Your task to perform on an android device: Show me the best rated coffee table on Ikea Image 0: 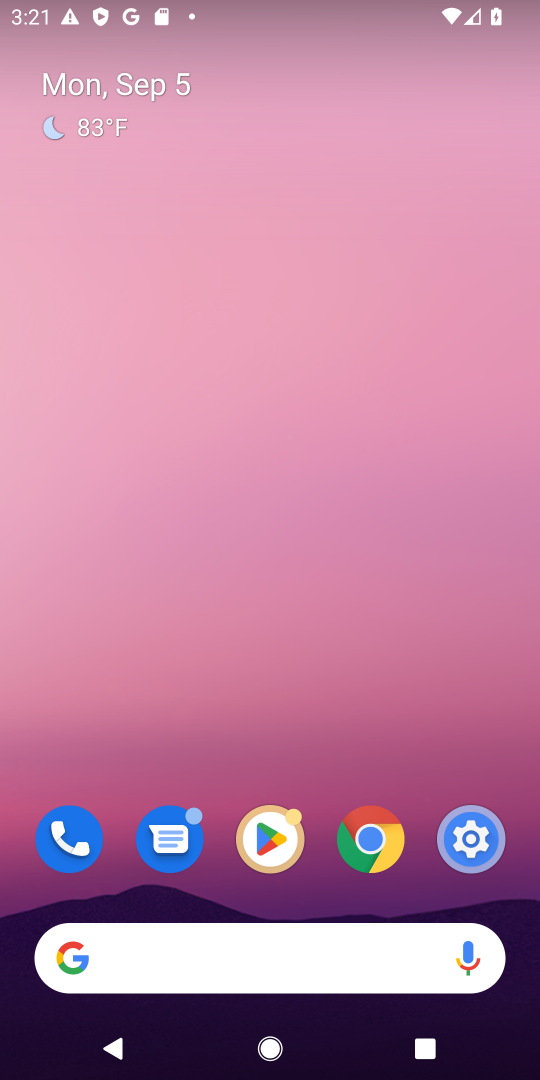
Step 0: type "ikea"
Your task to perform on an android device: Show me the best rated coffee table on Ikea Image 1: 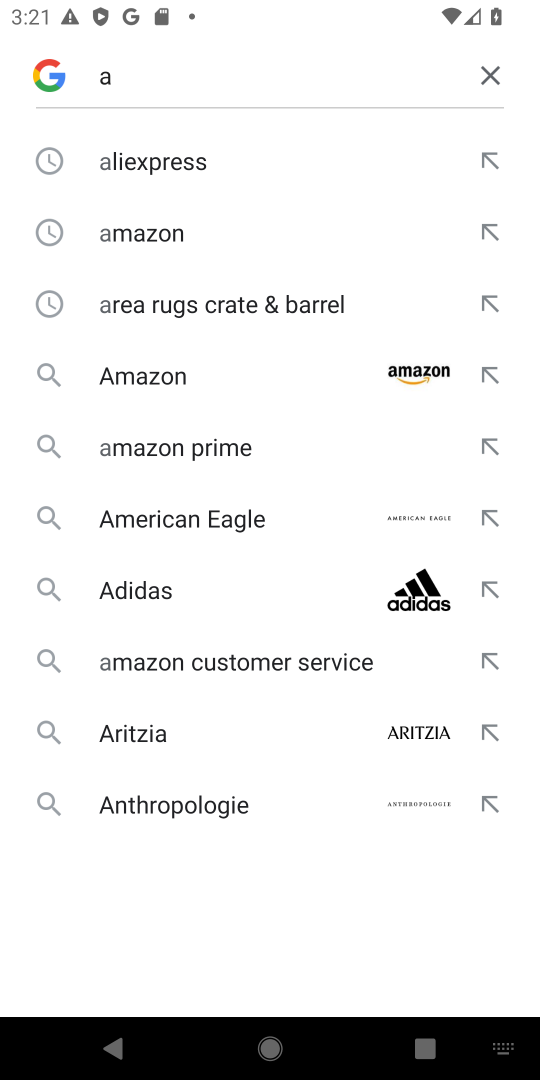
Step 1: click (488, 77)
Your task to perform on an android device: Show me the best rated coffee table on Ikea Image 2: 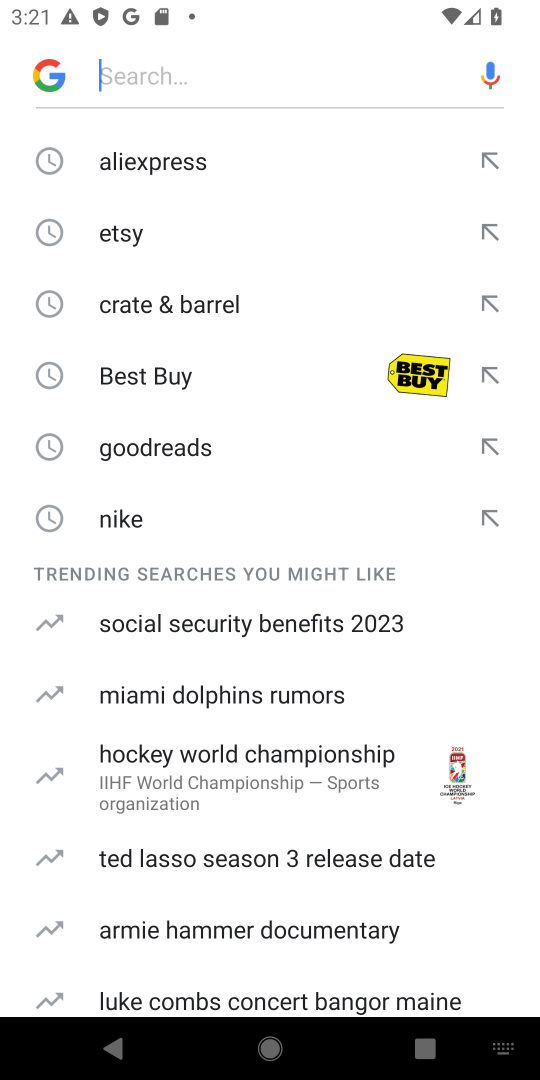
Step 2: type "ikea"
Your task to perform on an android device: Show me the best rated coffee table on Ikea Image 3: 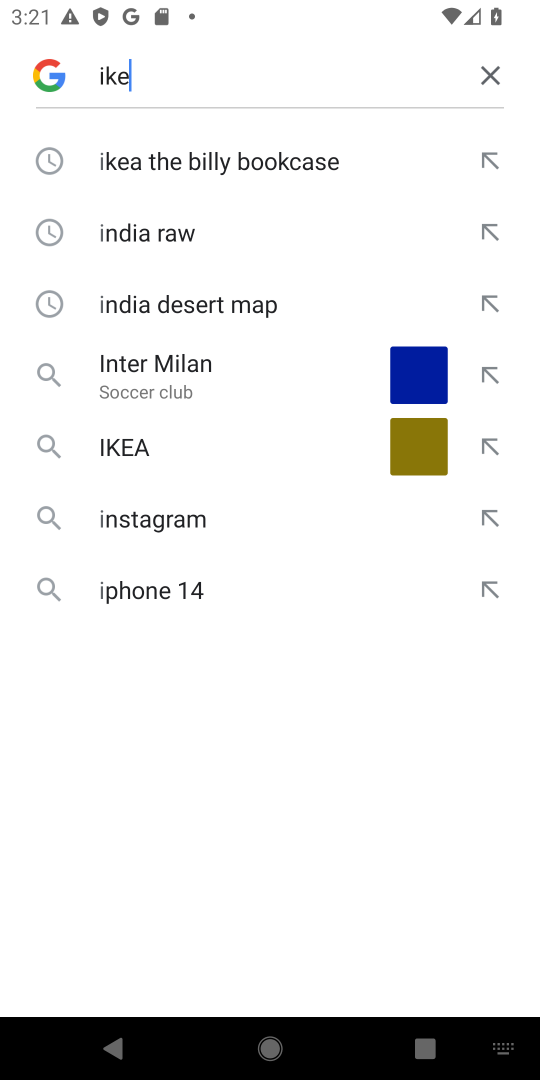
Step 3: type ""
Your task to perform on an android device: Show me the best rated coffee table on Ikea Image 4: 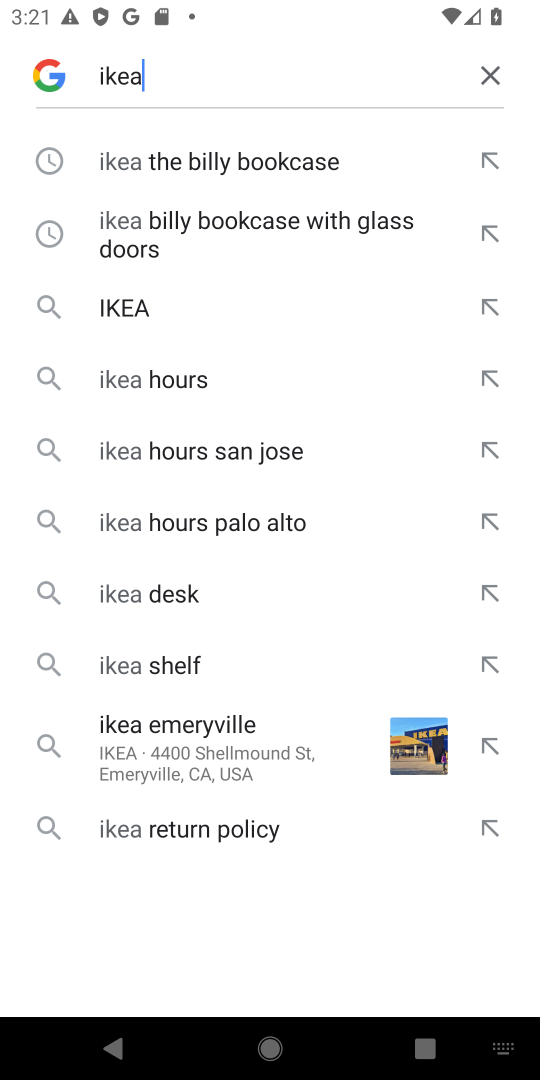
Step 4: press enter
Your task to perform on an android device: Show me the best rated coffee table on Ikea Image 5: 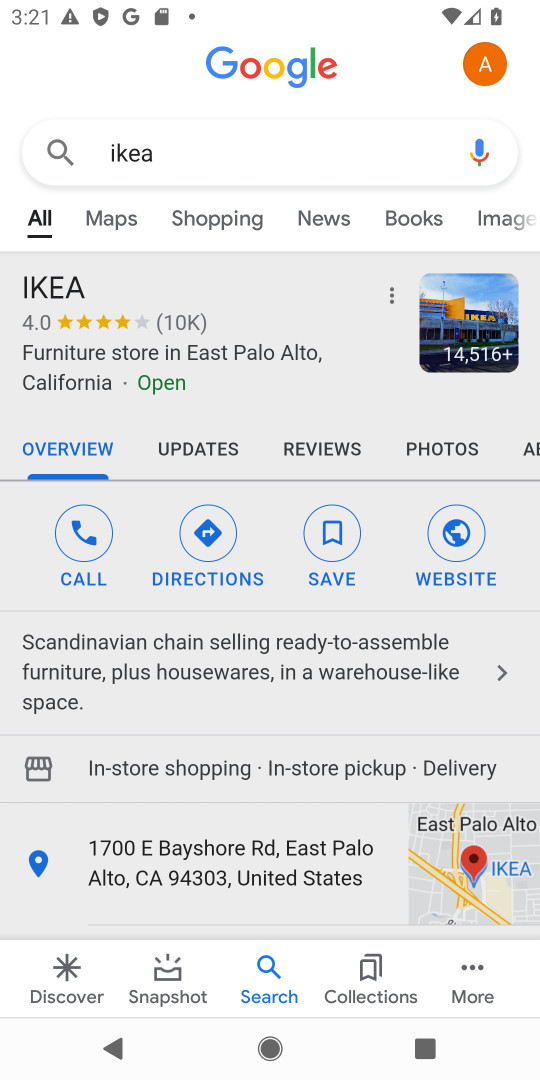
Step 5: drag from (221, 280) to (250, 74)
Your task to perform on an android device: Show me the best rated coffee table on Ikea Image 6: 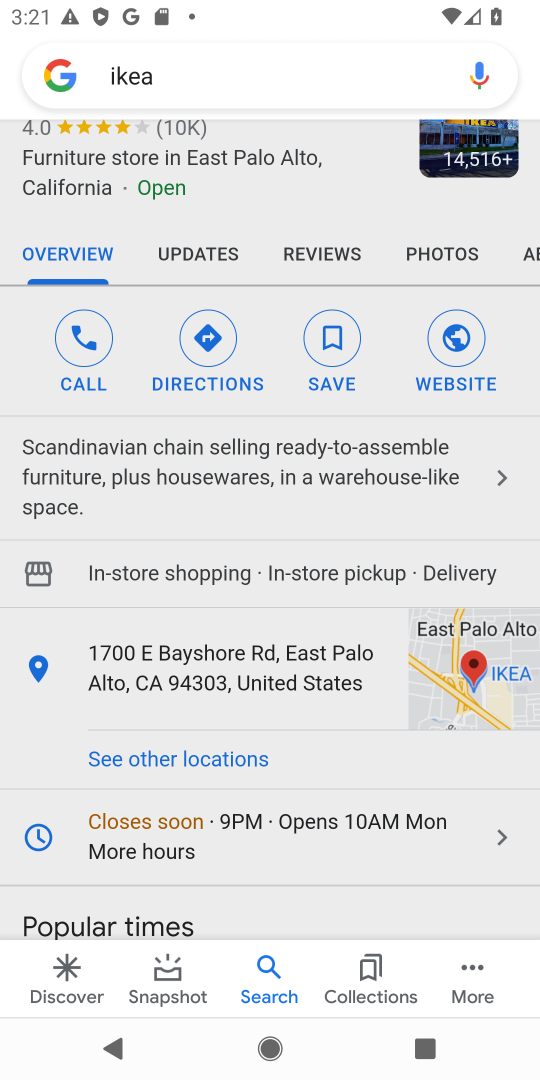
Step 6: drag from (291, 857) to (278, 350)
Your task to perform on an android device: Show me the best rated coffee table on Ikea Image 7: 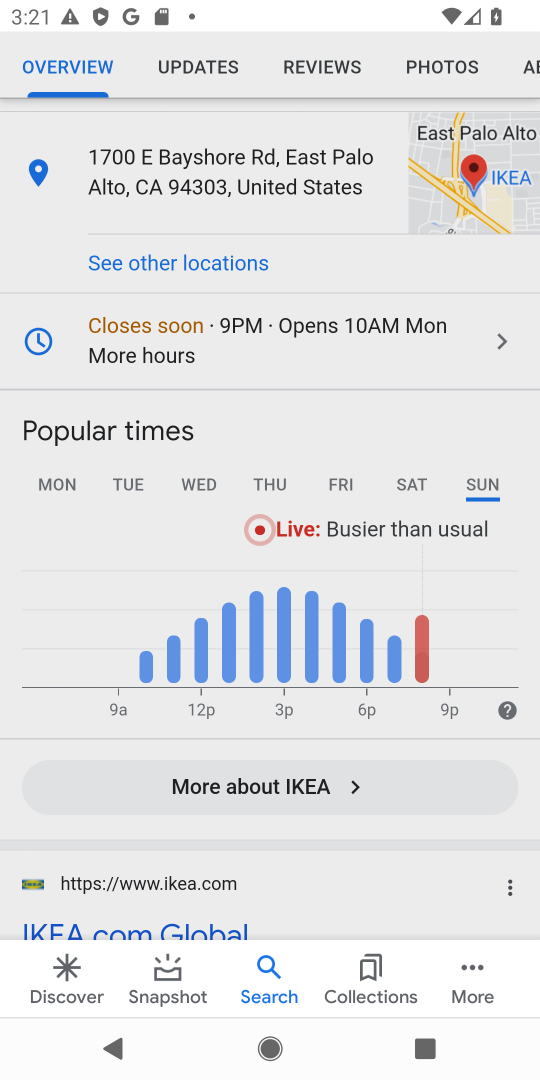
Step 7: drag from (270, 597) to (315, 162)
Your task to perform on an android device: Show me the best rated coffee table on Ikea Image 8: 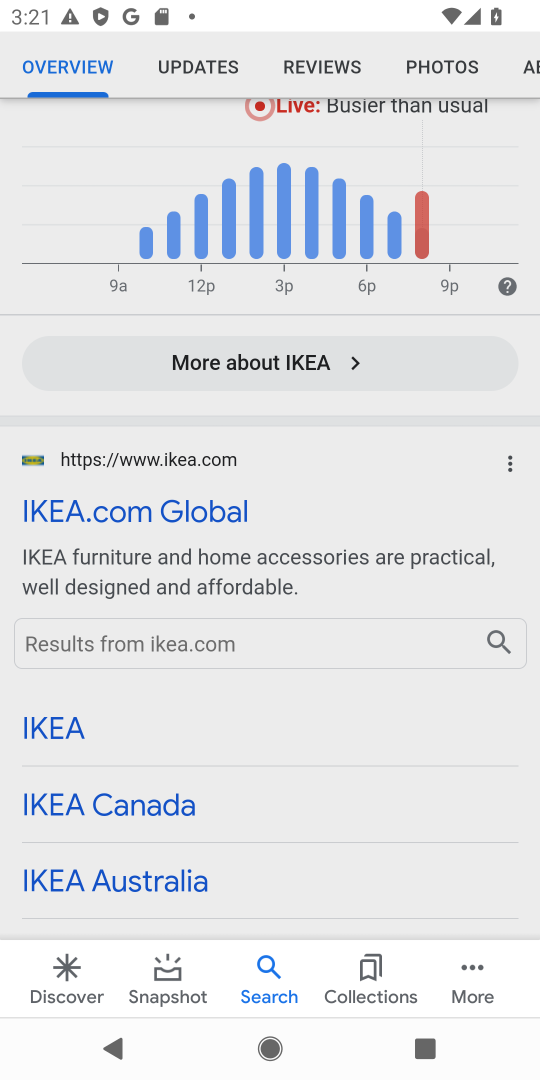
Step 8: click (131, 510)
Your task to perform on an android device: Show me the best rated coffee table on Ikea Image 9: 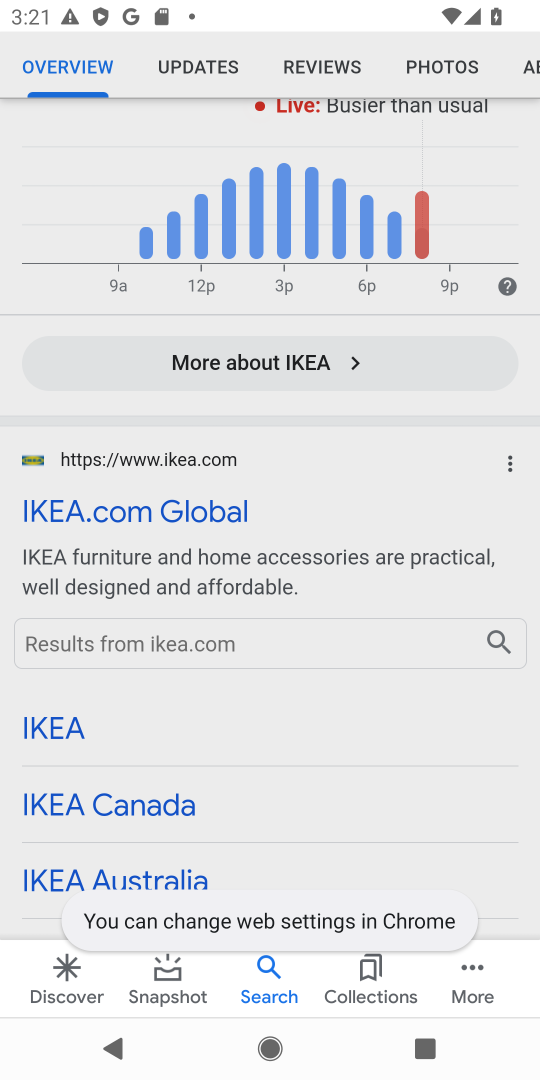
Step 9: click (133, 510)
Your task to perform on an android device: Show me the best rated coffee table on Ikea Image 10: 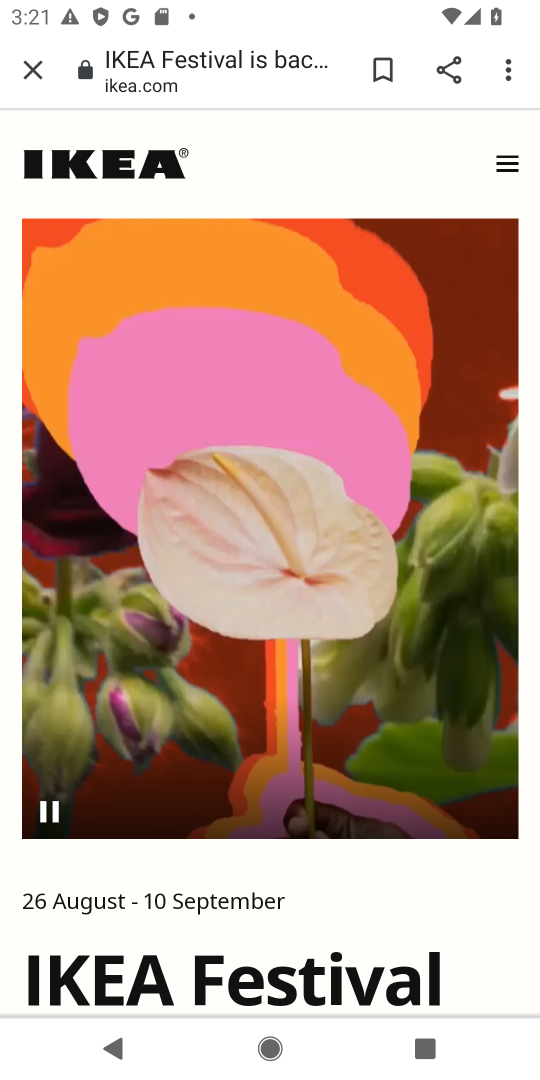
Step 10: drag from (342, 175) to (355, 79)
Your task to perform on an android device: Show me the best rated coffee table on Ikea Image 11: 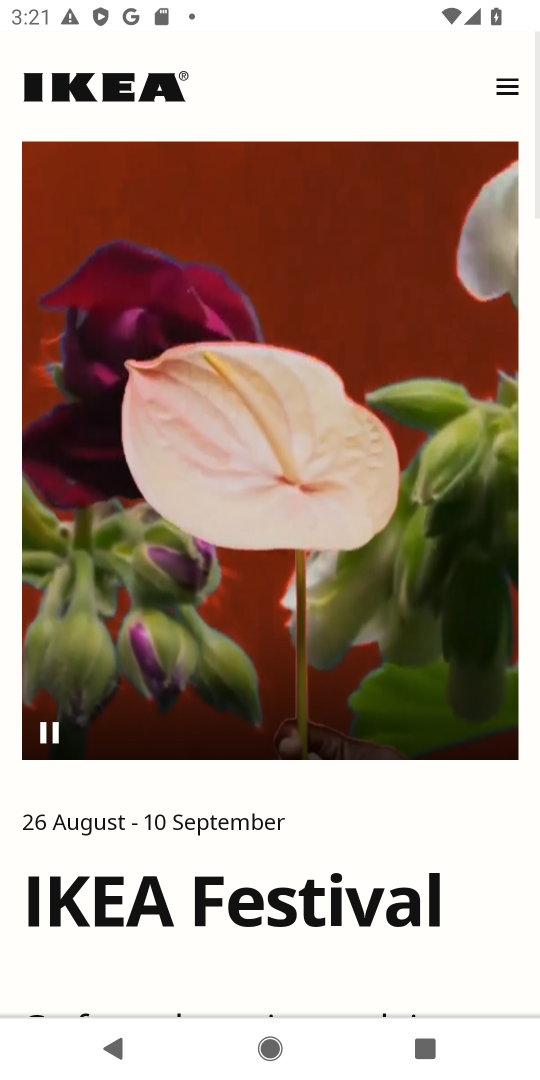
Step 11: drag from (4, 848) to (10, 641)
Your task to perform on an android device: Show me the best rated coffee table on Ikea Image 12: 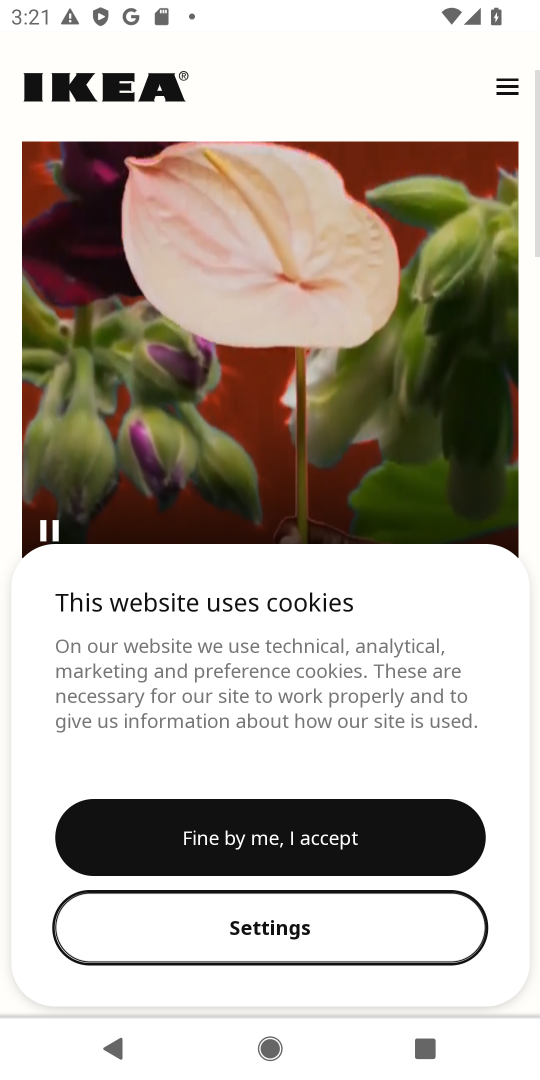
Step 12: click (249, 844)
Your task to perform on an android device: Show me the best rated coffee table on Ikea Image 13: 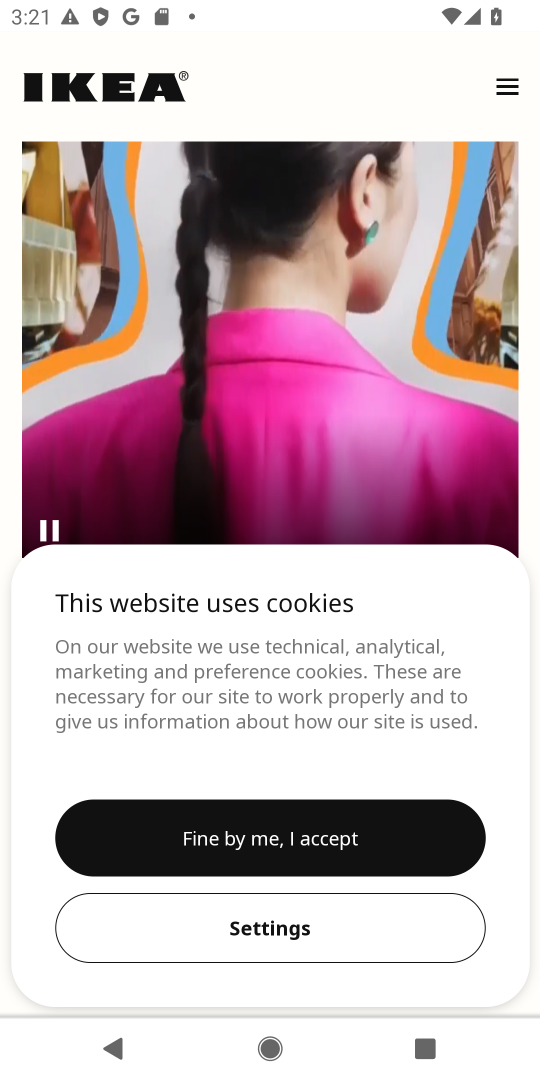
Step 13: click (249, 844)
Your task to perform on an android device: Show me the best rated coffee table on Ikea Image 14: 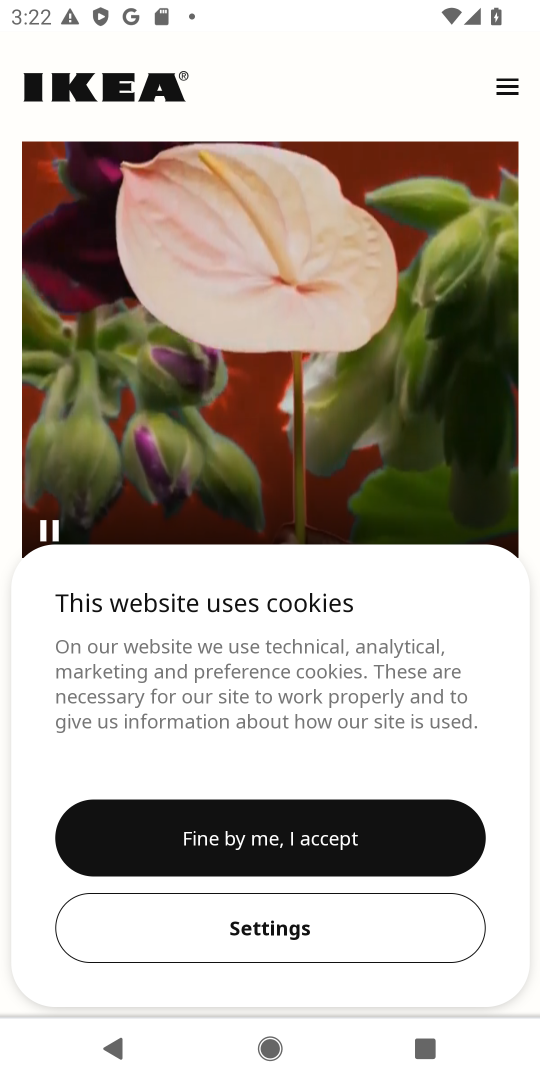
Step 14: click (276, 844)
Your task to perform on an android device: Show me the best rated coffee table on Ikea Image 15: 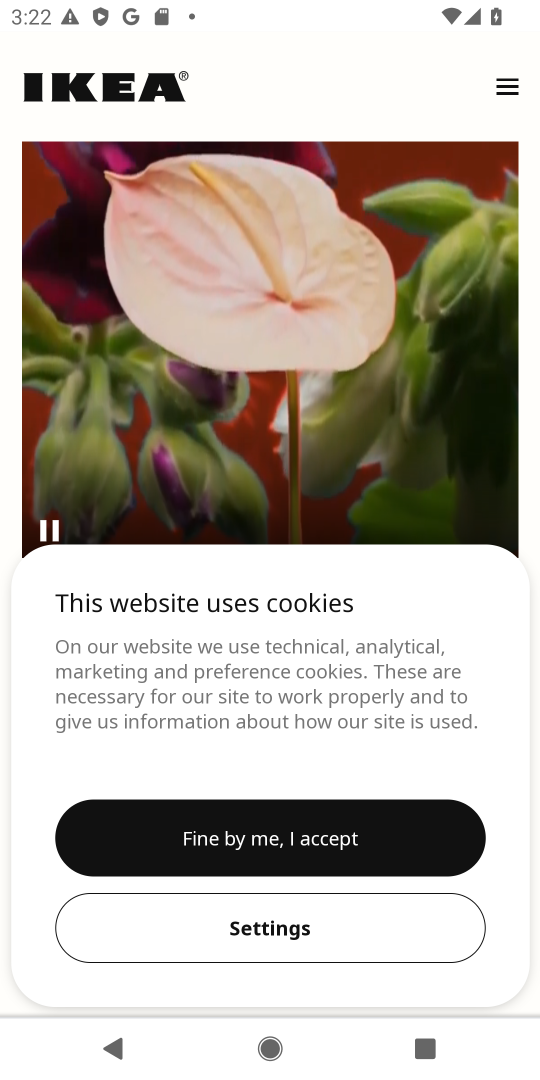
Step 15: click (276, 844)
Your task to perform on an android device: Show me the best rated coffee table on Ikea Image 16: 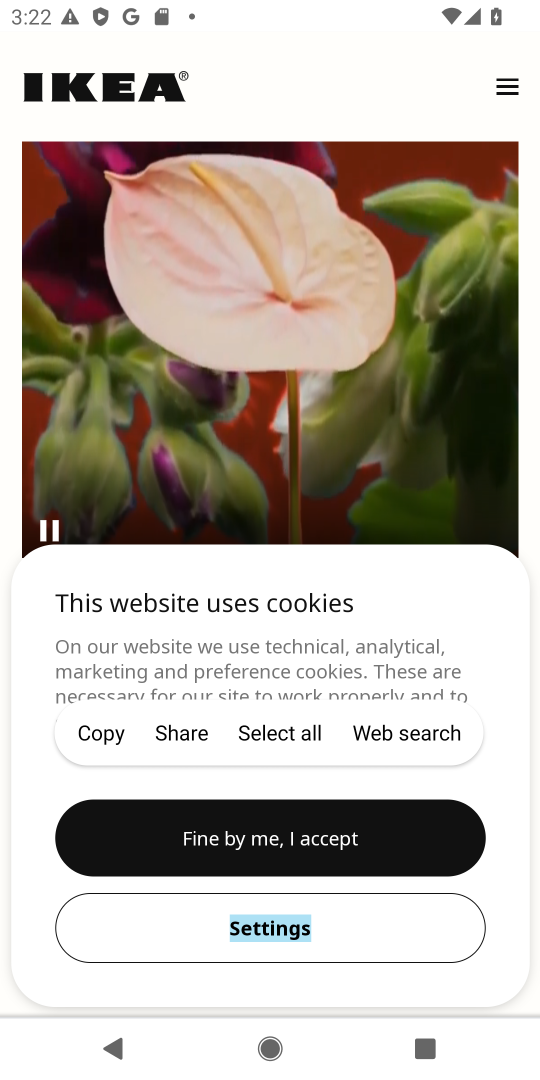
Step 16: click (305, 826)
Your task to perform on an android device: Show me the best rated coffee table on Ikea Image 17: 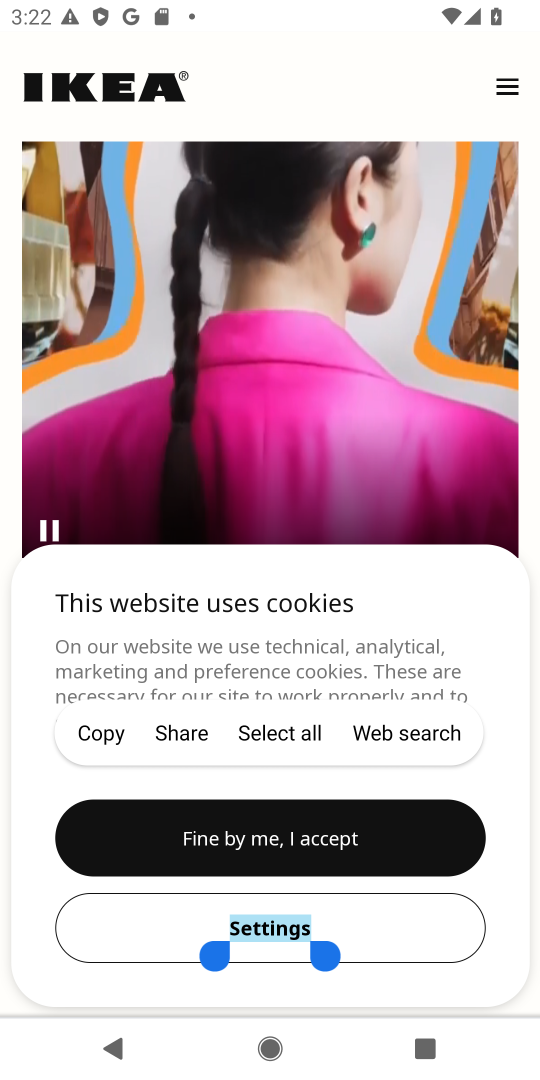
Step 17: click (309, 844)
Your task to perform on an android device: Show me the best rated coffee table on Ikea Image 18: 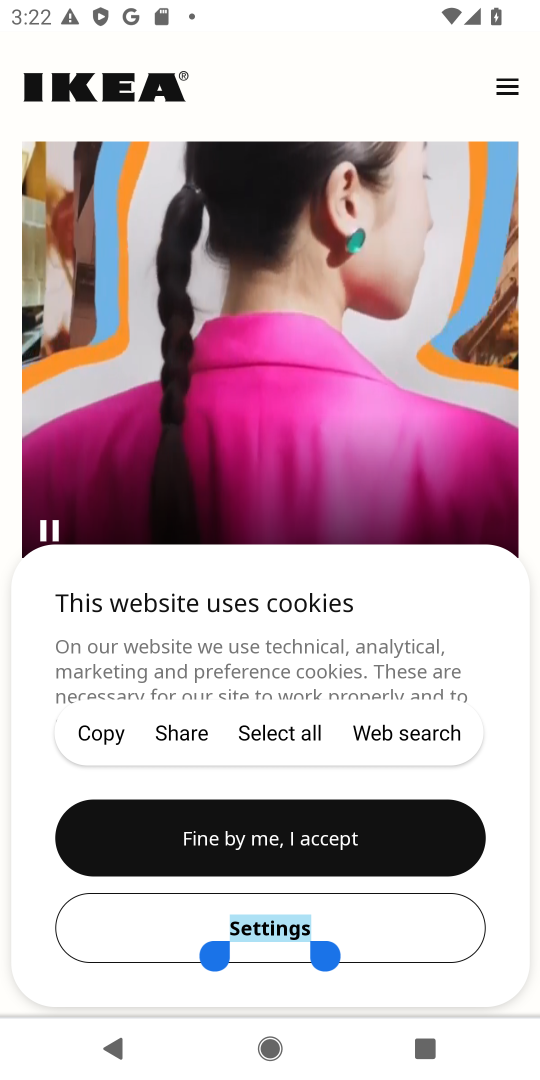
Step 18: click (310, 847)
Your task to perform on an android device: Show me the best rated coffee table on Ikea Image 19: 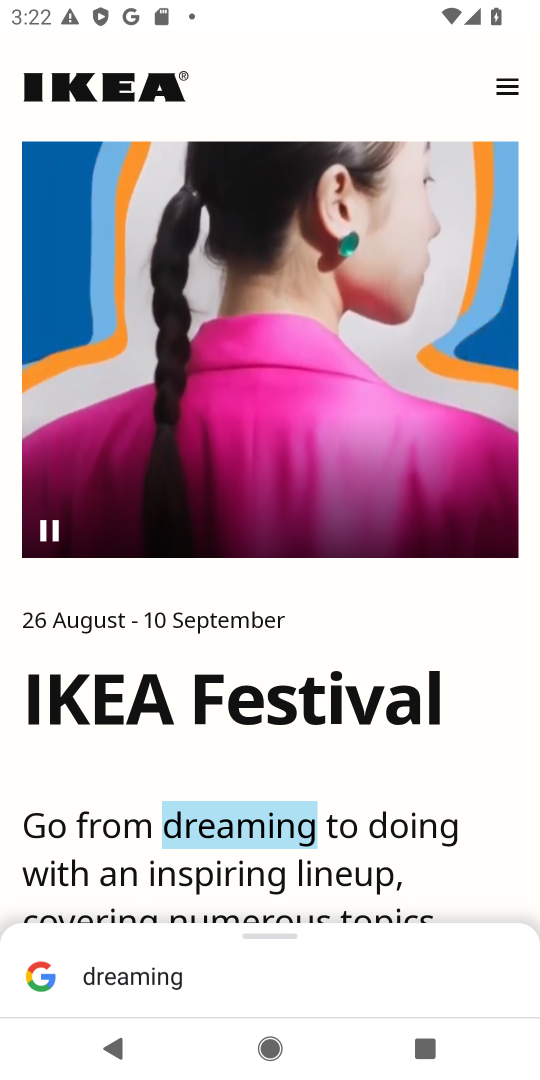
Step 19: click (524, 552)
Your task to perform on an android device: Show me the best rated coffee table on Ikea Image 20: 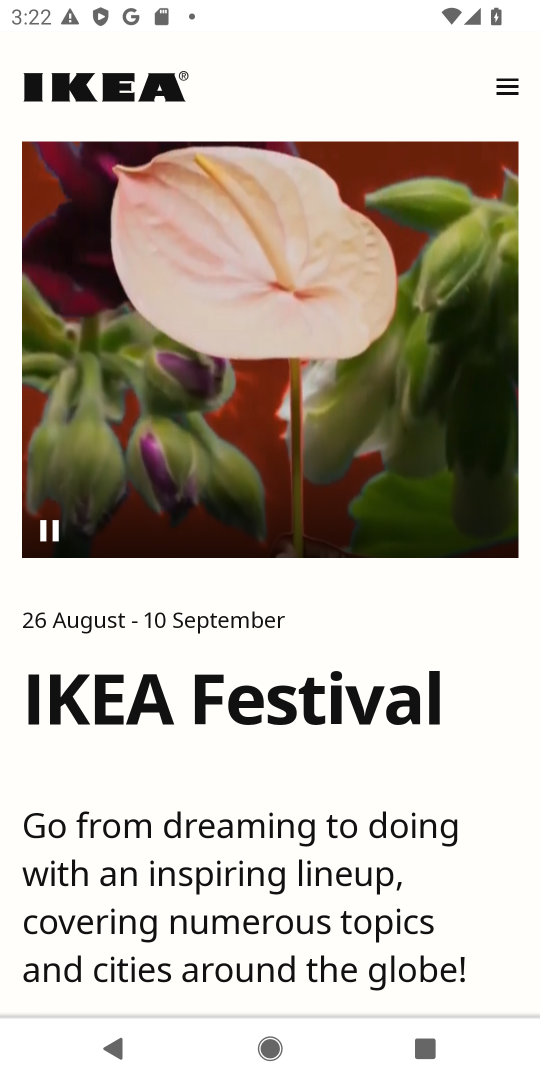
Step 20: drag from (522, 797) to (522, 536)
Your task to perform on an android device: Show me the best rated coffee table on Ikea Image 21: 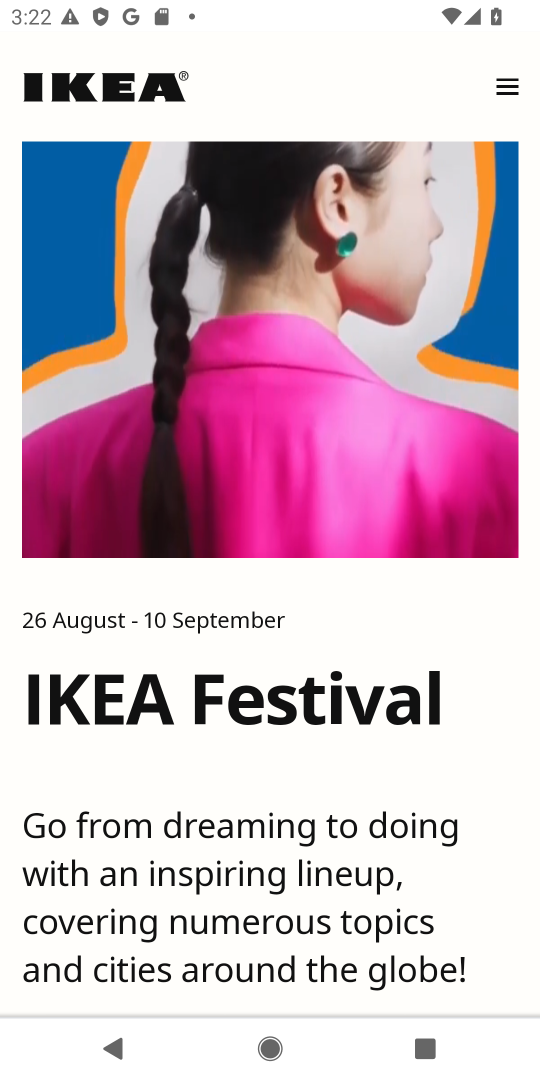
Step 21: click (490, 711)
Your task to perform on an android device: Show me the best rated coffee table on Ikea Image 22: 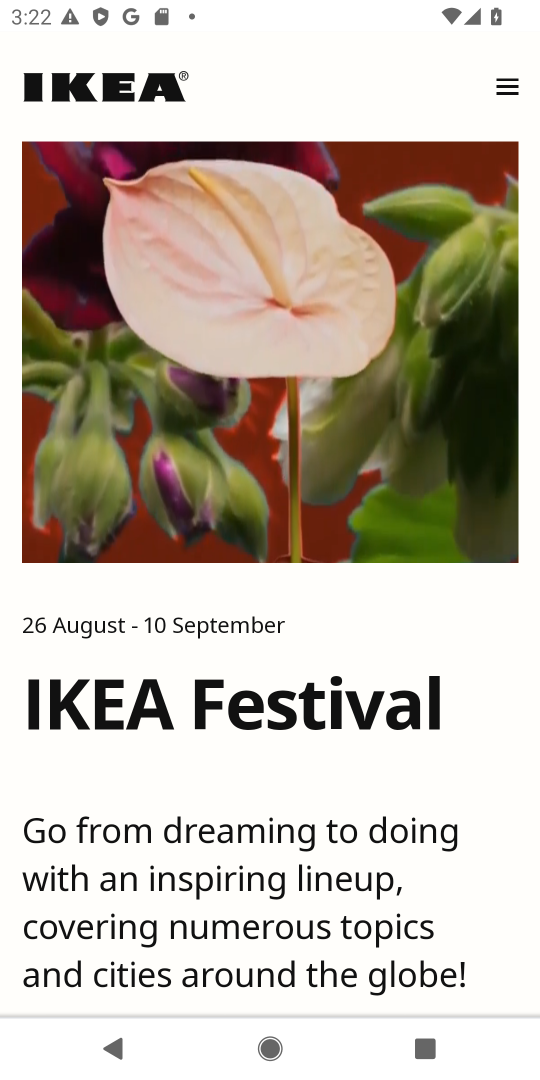
Step 22: press back button
Your task to perform on an android device: Show me the best rated coffee table on Ikea Image 23: 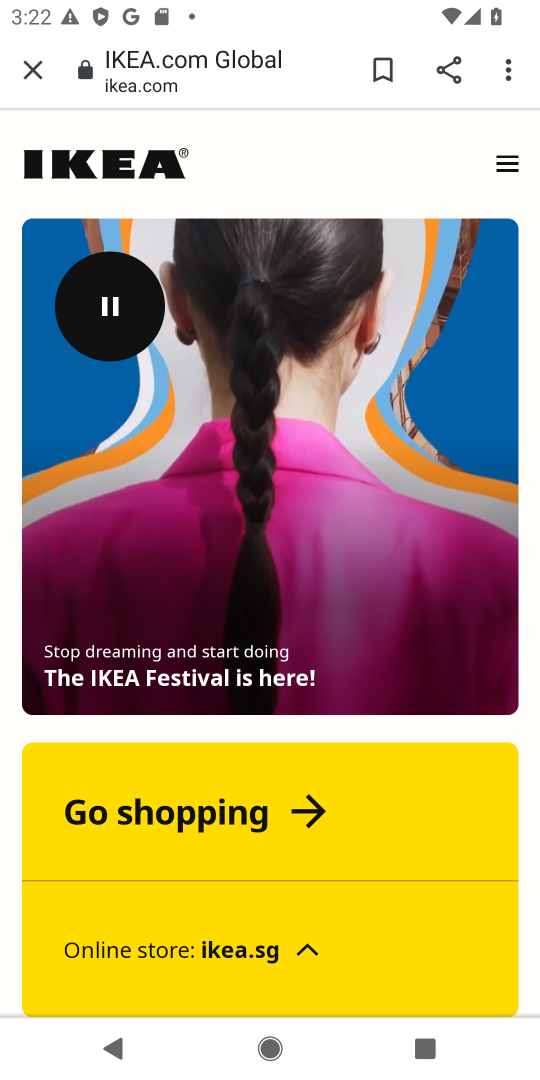
Step 23: click (297, 807)
Your task to perform on an android device: Show me the best rated coffee table on Ikea Image 24: 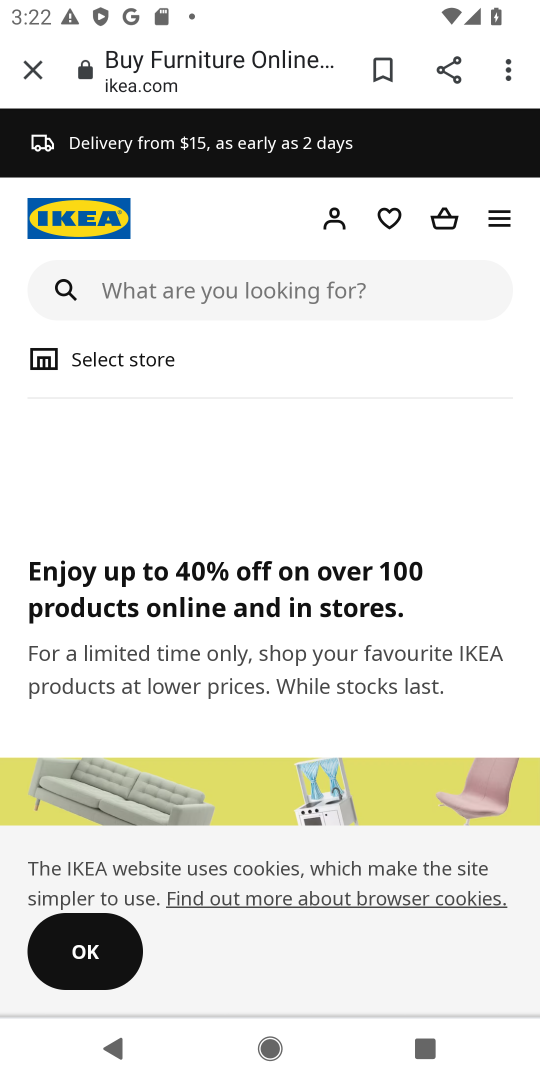
Step 24: click (188, 284)
Your task to perform on an android device: Show me the best rated coffee table on Ikea Image 25: 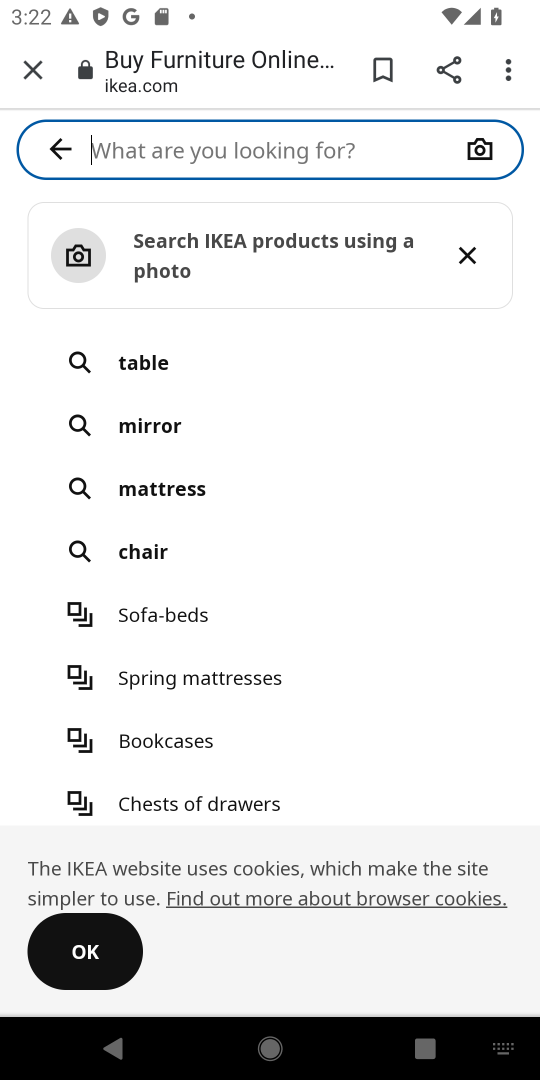
Step 25: type "coffee table"
Your task to perform on an android device: Show me the best rated coffee table on Ikea Image 26: 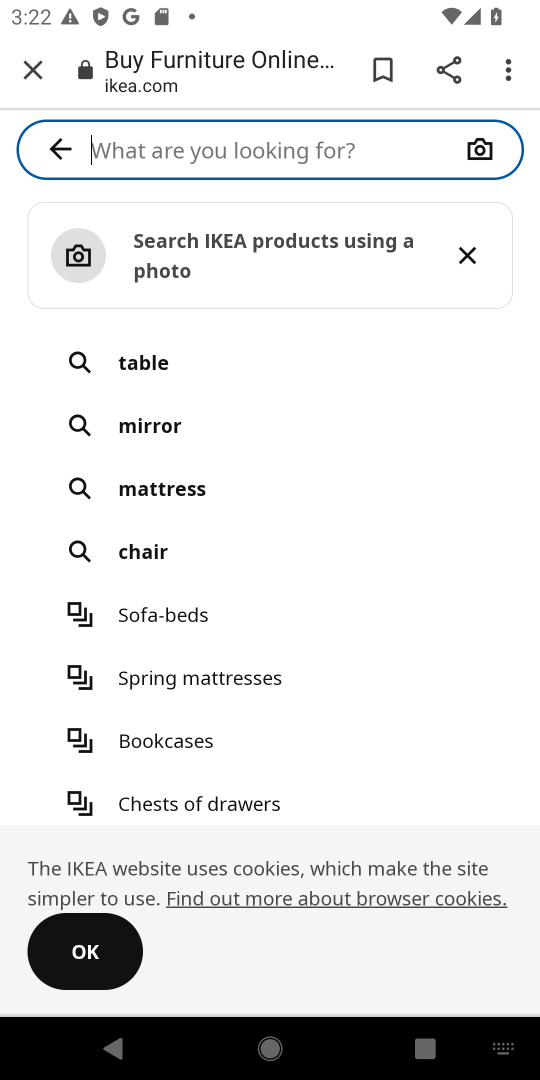
Step 26: type ""
Your task to perform on an android device: Show me the best rated coffee table on Ikea Image 27: 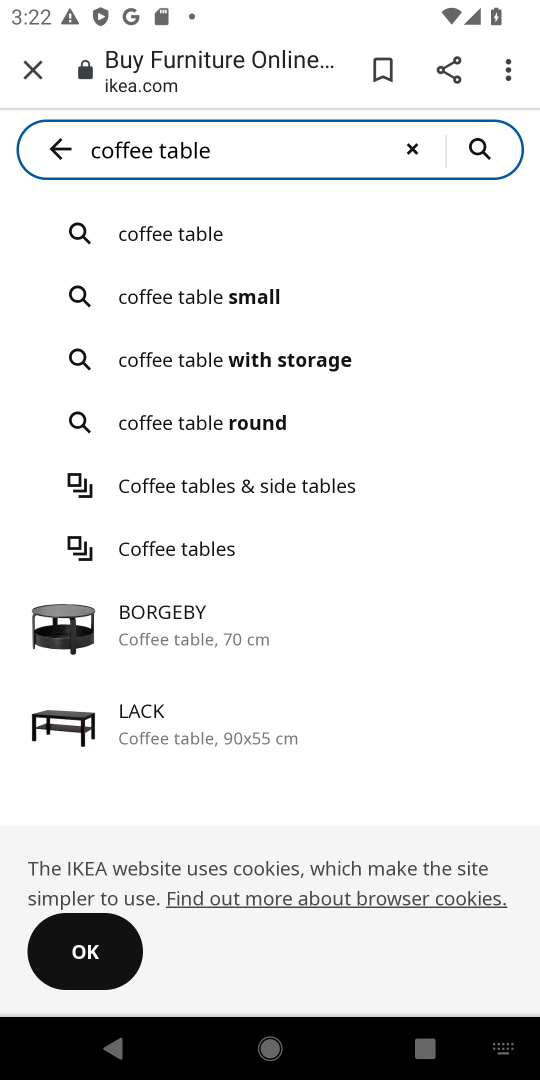
Step 27: press enter
Your task to perform on an android device: Show me the best rated coffee table on Ikea Image 28: 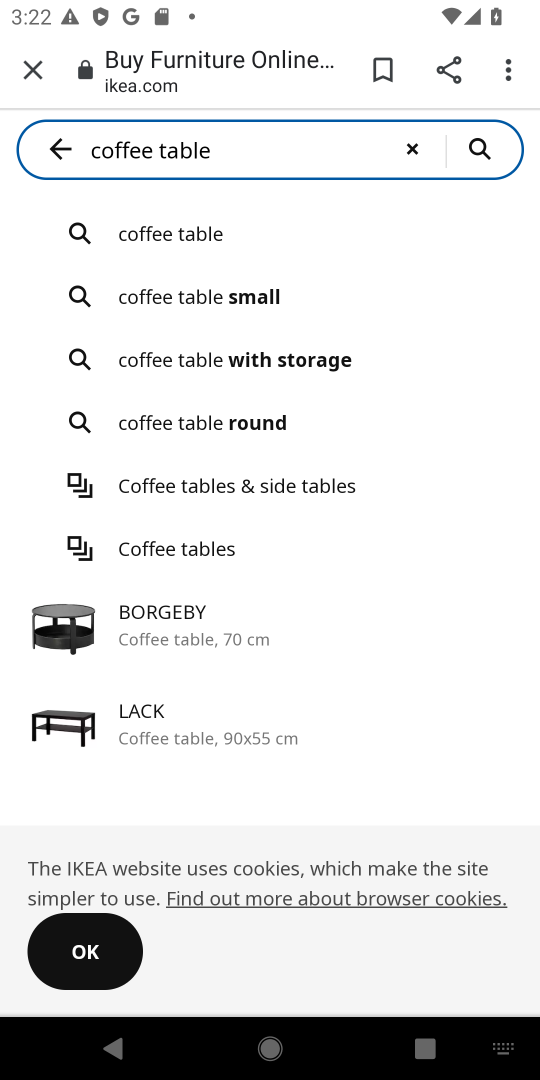
Step 28: press enter
Your task to perform on an android device: Show me the best rated coffee table on Ikea Image 29: 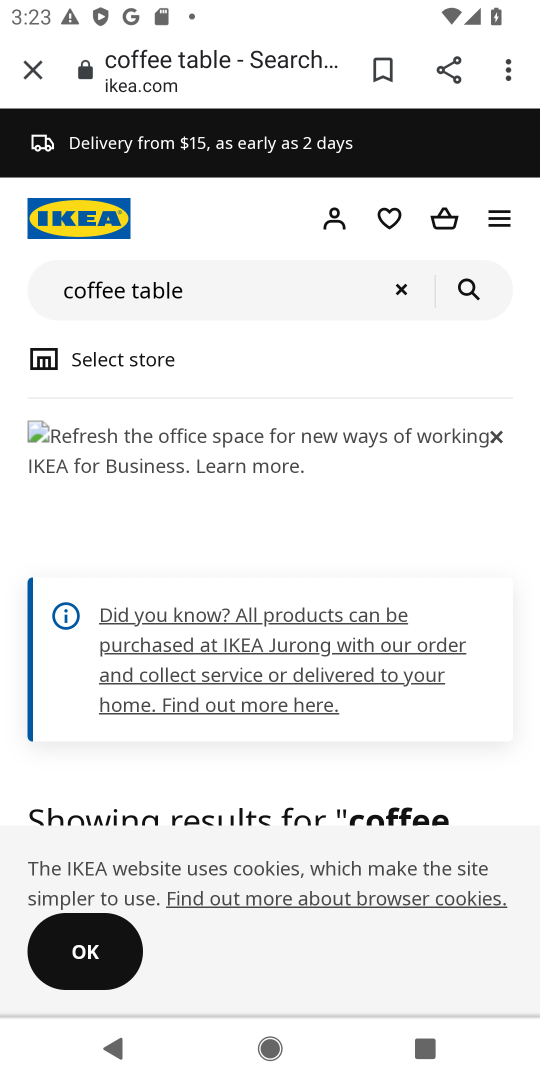
Step 29: click (496, 429)
Your task to perform on an android device: Show me the best rated coffee table on Ikea Image 30: 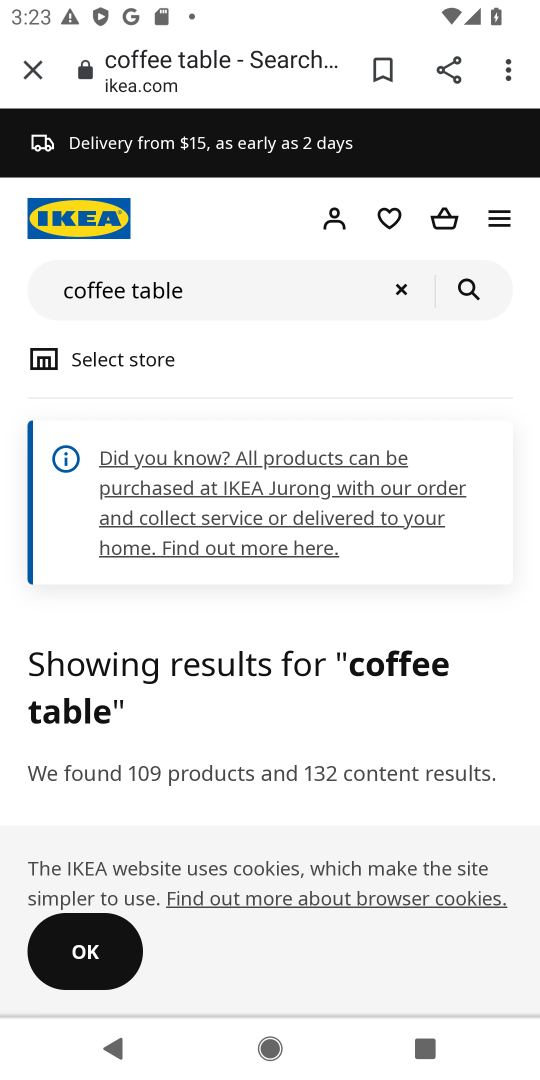
Step 30: click (407, 332)
Your task to perform on an android device: Show me the best rated coffee table on Ikea Image 31: 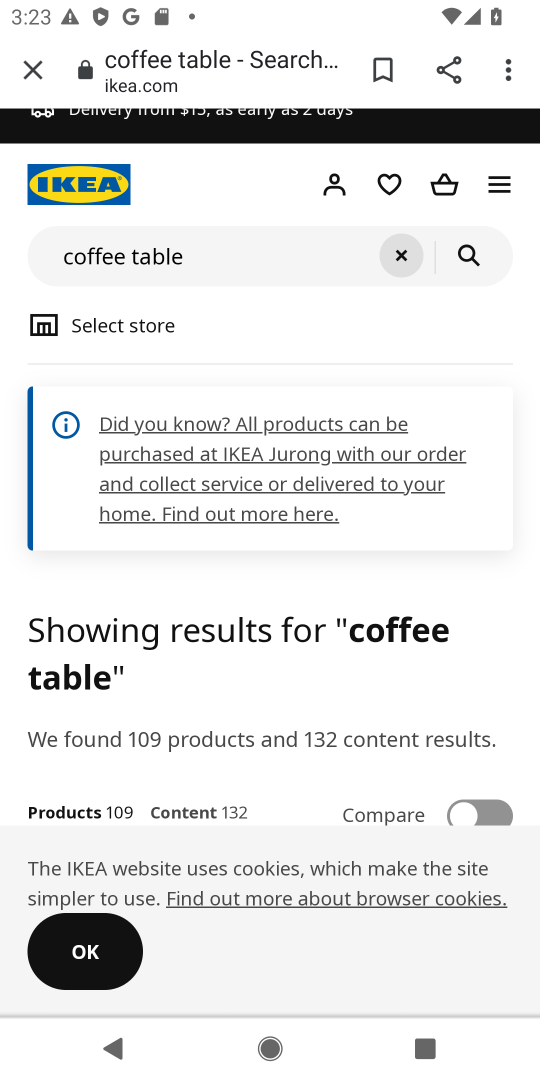
Step 31: drag from (301, 682) to (333, 254)
Your task to perform on an android device: Show me the best rated coffee table on Ikea Image 32: 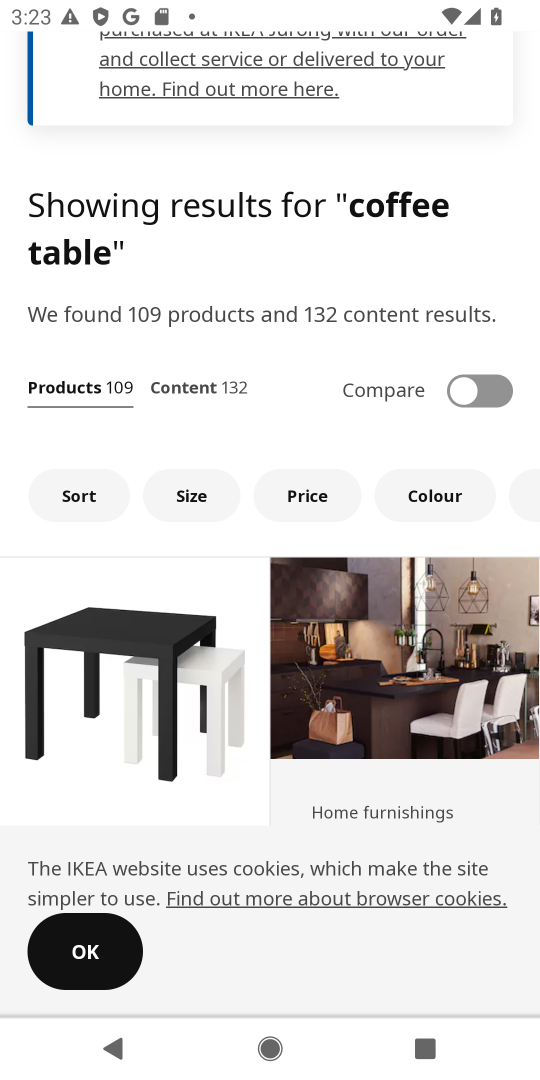
Step 32: click (79, 483)
Your task to perform on an android device: Show me the best rated coffee table on Ikea Image 33: 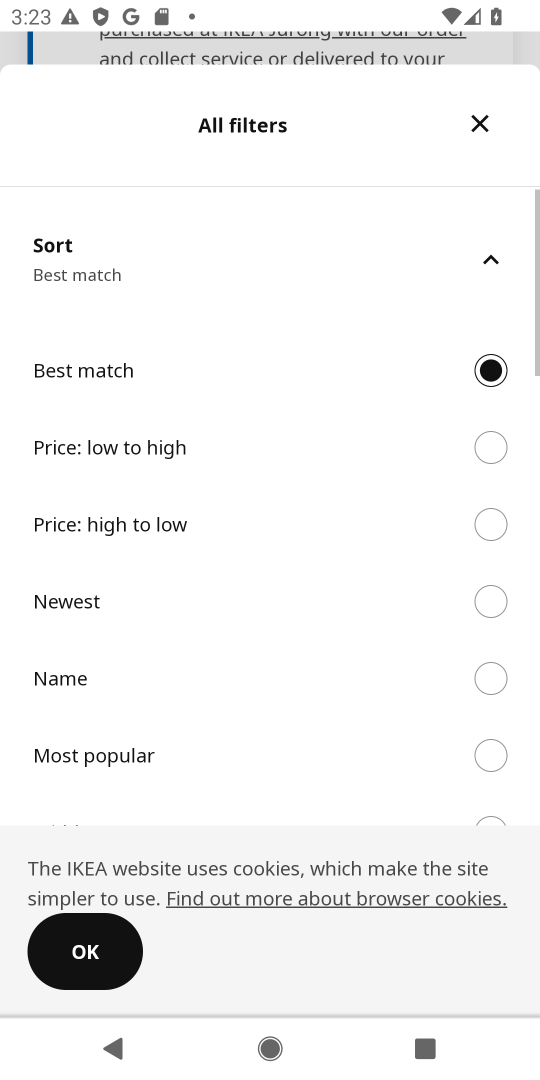
Step 33: drag from (239, 818) to (333, 167)
Your task to perform on an android device: Show me the best rated coffee table on Ikea Image 34: 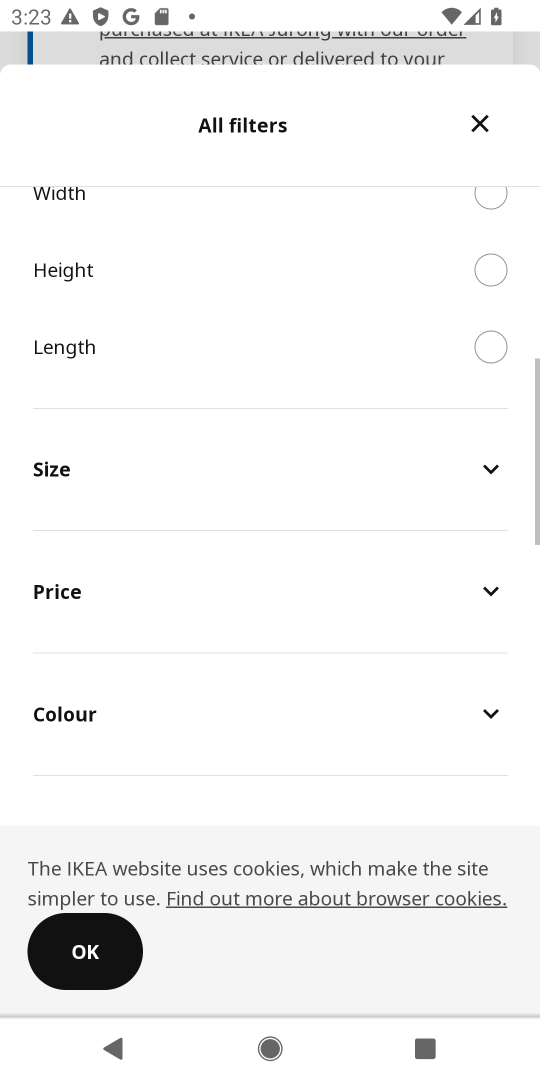
Step 34: drag from (160, 578) to (265, 264)
Your task to perform on an android device: Show me the best rated coffee table on Ikea Image 35: 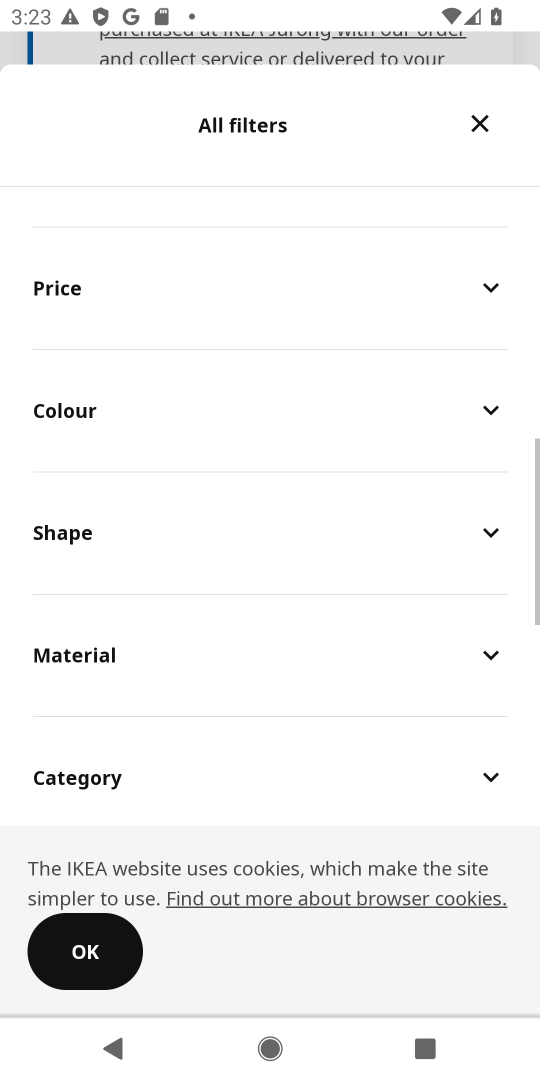
Step 35: drag from (217, 750) to (328, 250)
Your task to perform on an android device: Show me the best rated coffee table on Ikea Image 36: 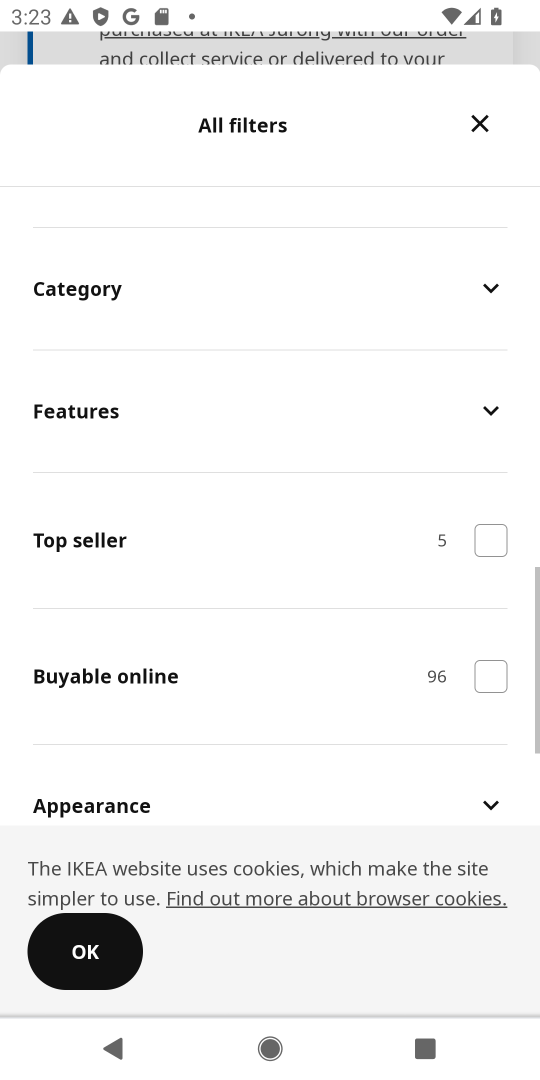
Step 36: click (478, 277)
Your task to perform on an android device: Show me the best rated coffee table on Ikea Image 37: 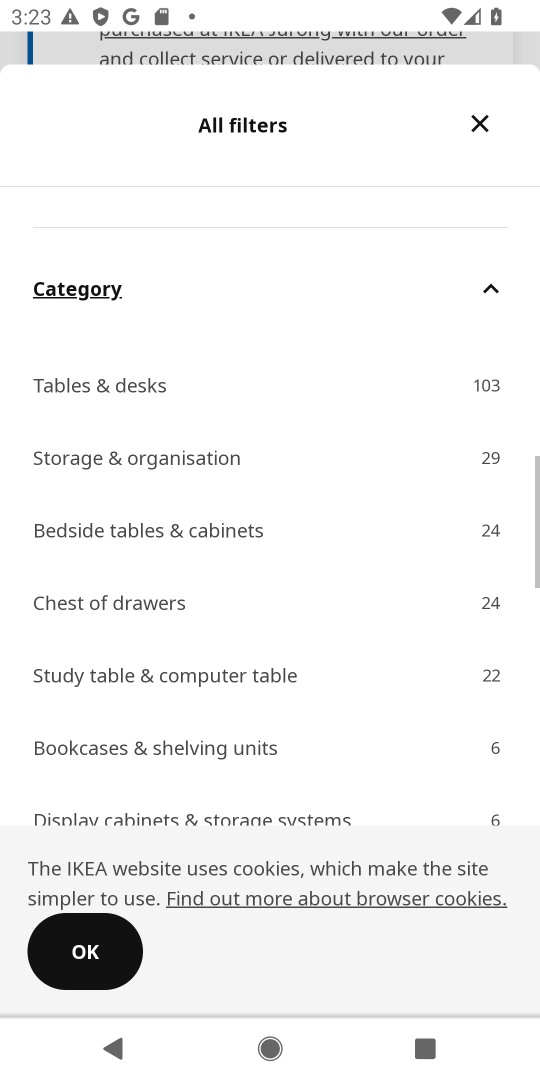
Step 37: click (482, 285)
Your task to perform on an android device: Show me the best rated coffee table on Ikea Image 38: 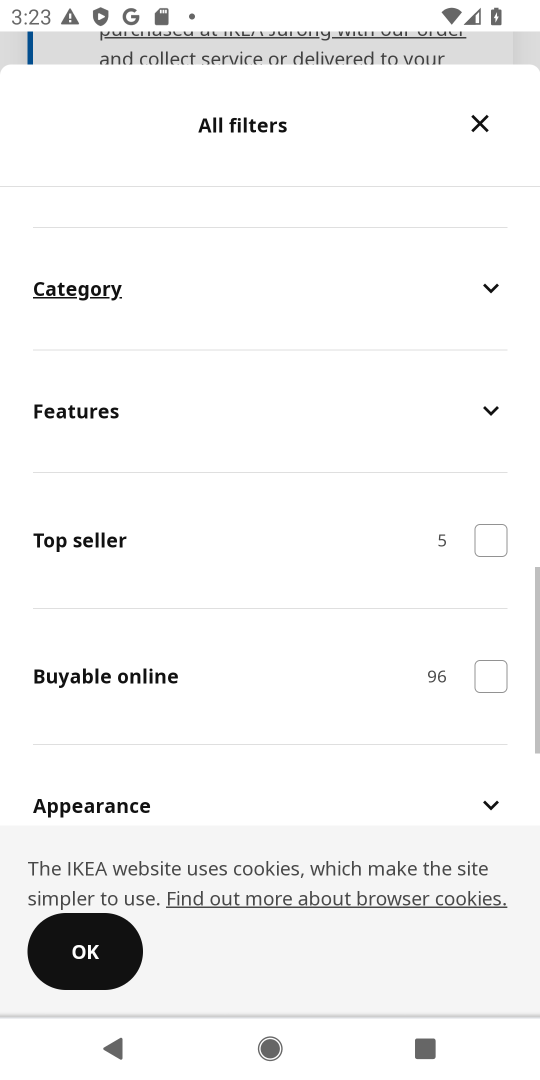
Step 38: drag from (236, 692) to (347, 5)
Your task to perform on an android device: Show me the best rated coffee table on Ikea Image 39: 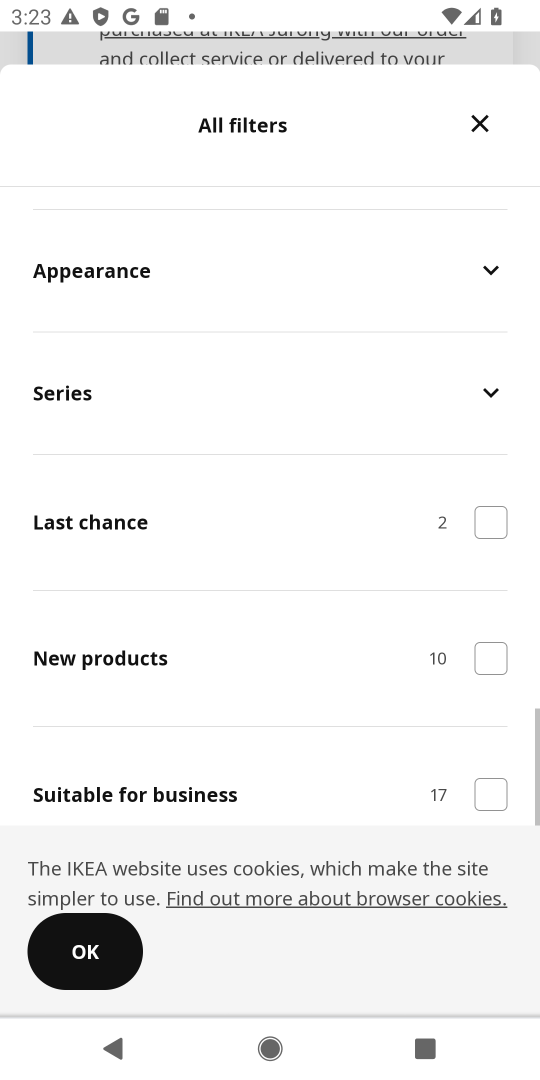
Step 39: drag from (234, 710) to (334, 279)
Your task to perform on an android device: Show me the best rated coffee table on Ikea Image 40: 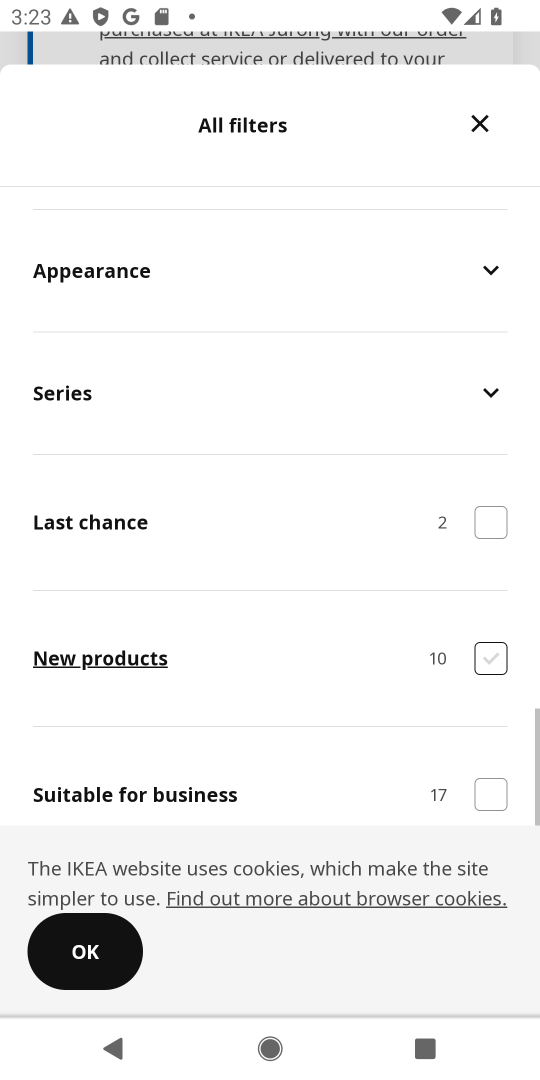
Step 40: click (478, 119)
Your task to perform on an android device: Show me the best rated coffee table on Ikea Image 41: 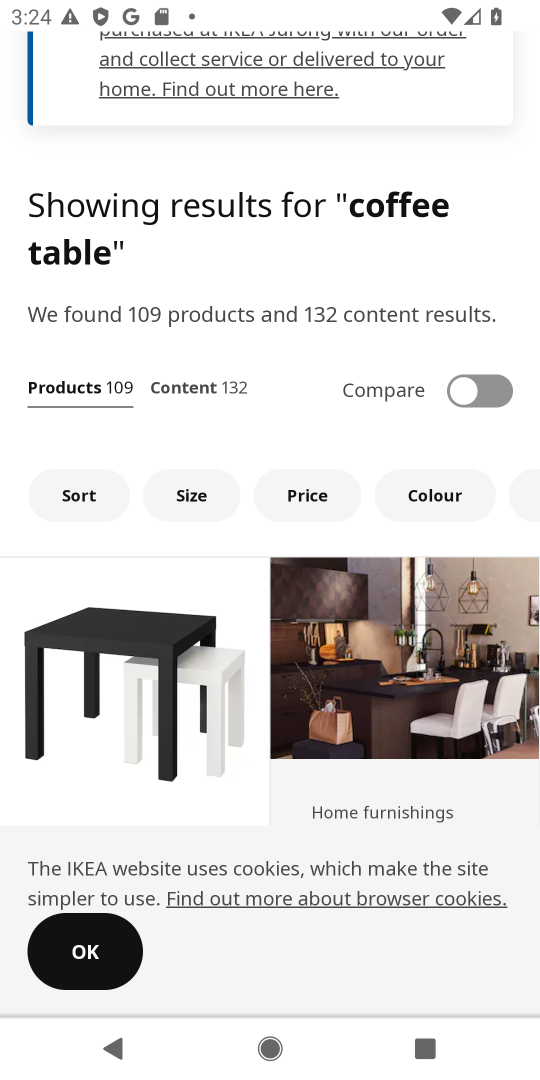
Step 41: drag from (259, 602) to (299, 275)
Your task to perform on an android device: Show me the best rated coffee table on Ikea Image 42: 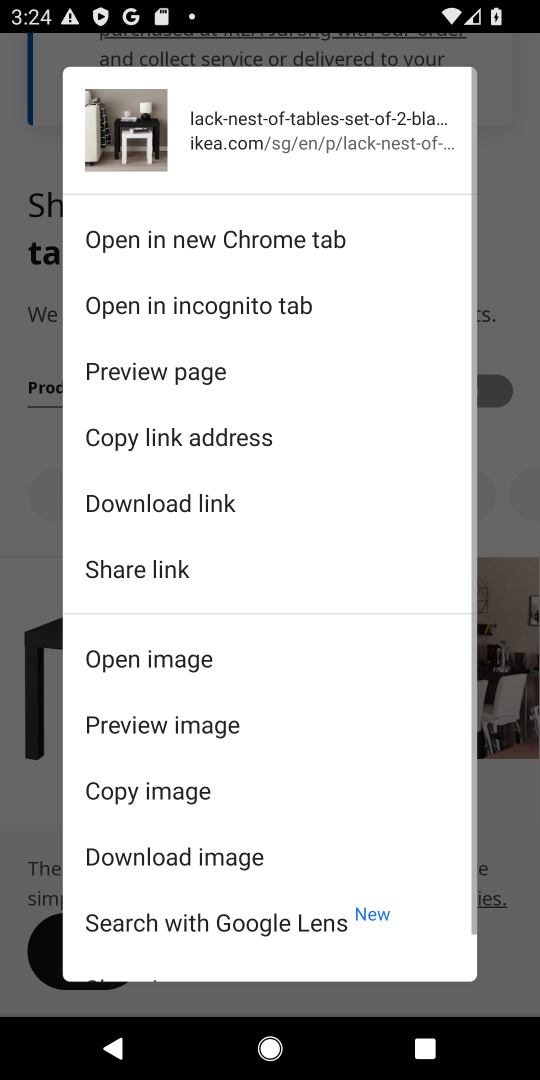
Step 42: click (528, 143)
Your task to perform on an android device: Show me the best rated coffee table on Ikea Image 43: 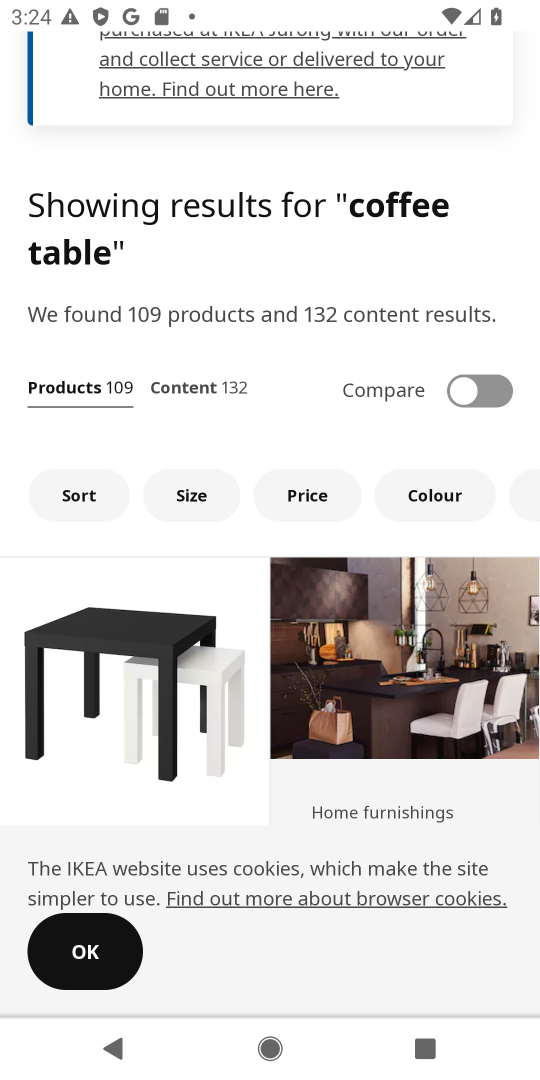
Step 43: drag from (499, 243) to (495, 157)
Your task to perform on an android device: Show me the best rated coffee table on Ikea Image 44: 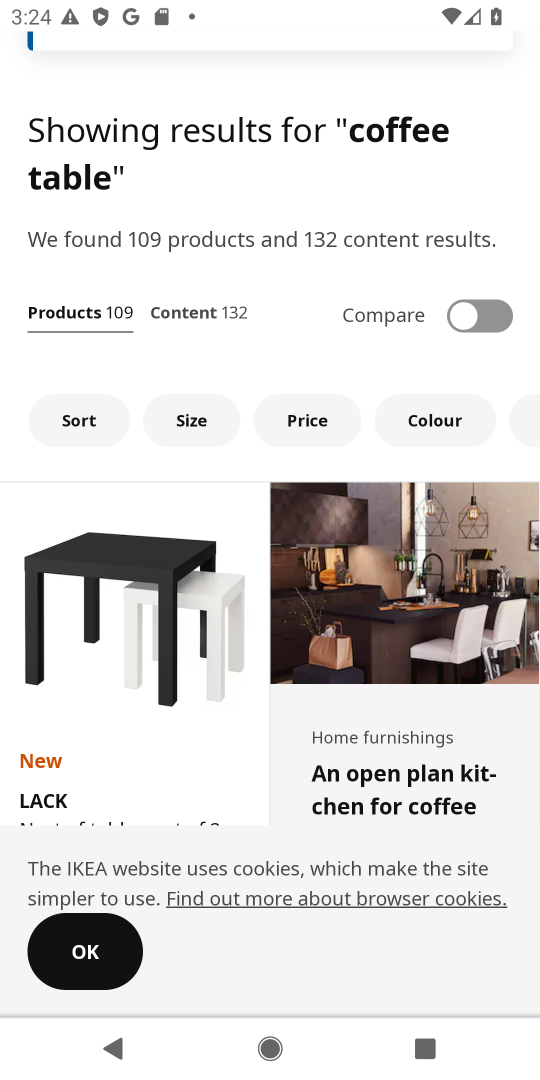
Step 44: click (82, 408)
Your task to perform on an android device: Show me the best rated coffee table on Ikea Image 45: 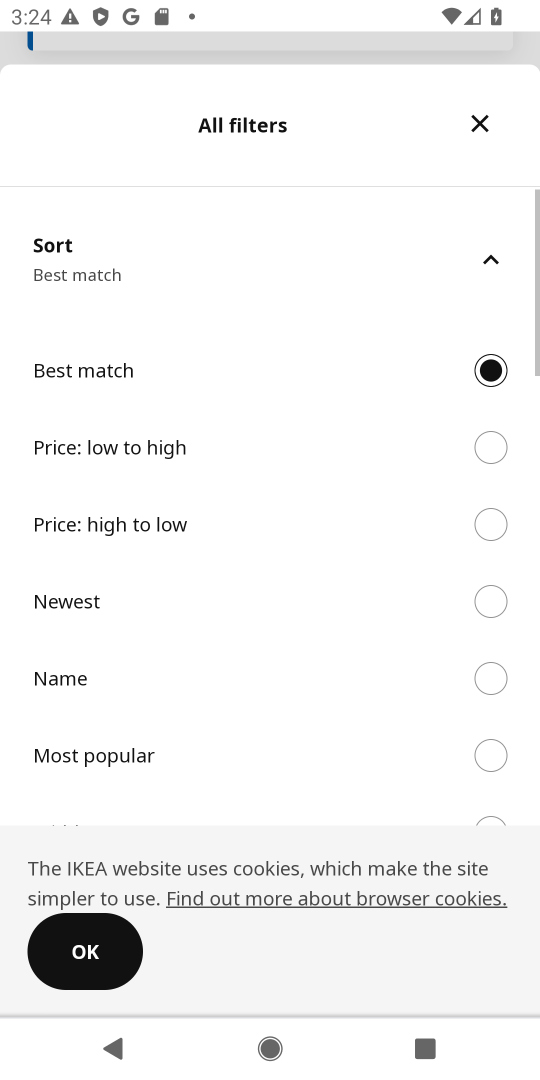
Step 45: click (485, 110)
Your task to perform on an android device: Show me the best rated coffee table on Ikea Image 46: 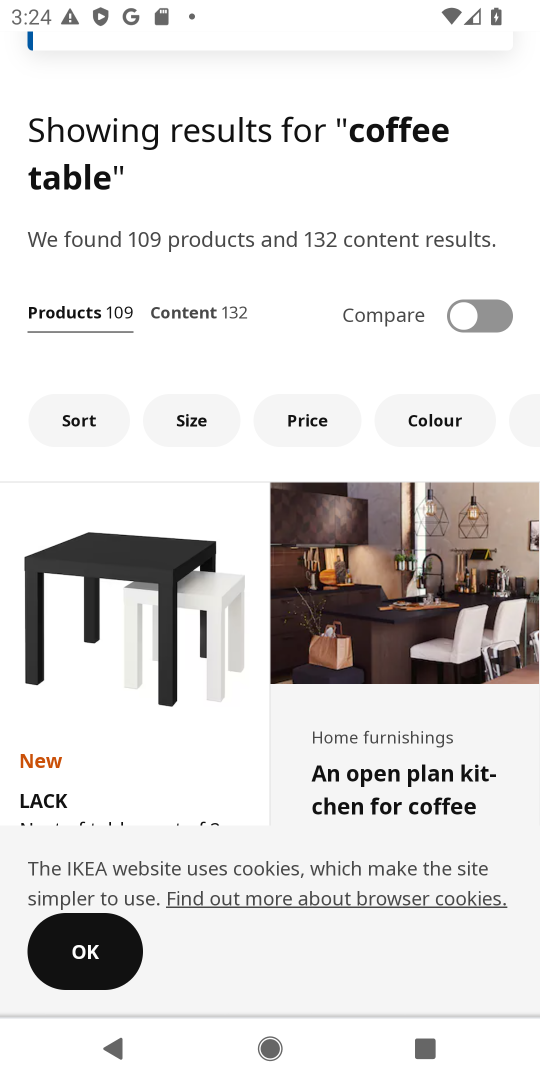
Step 46: task complete